Your task to perform on an android device: Open Google Chrome and open the bookmarks view Image 0: 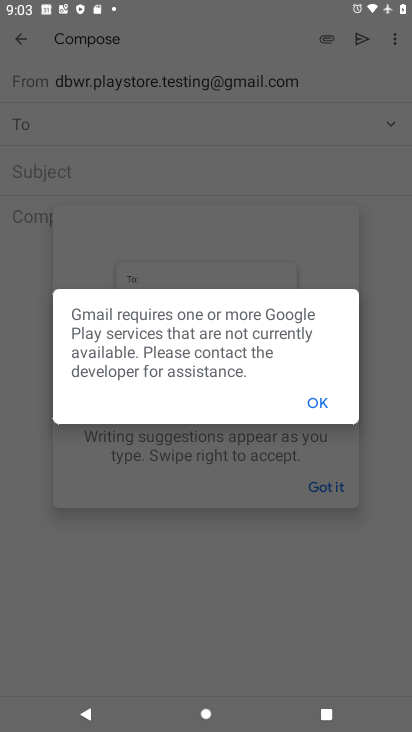
Step 0: press home button
Your task to perform on an android device: Open Google Chrome and open the bookmarks view Image 1: 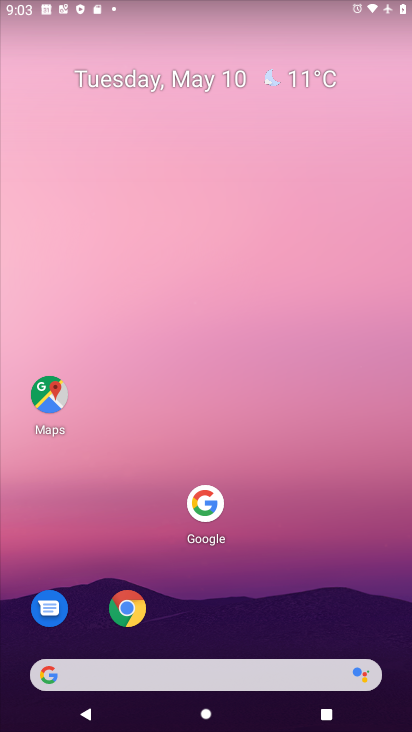
Step 1: drag from (262, 682) to (257, 153)
Your task to perform on an android device: Open Google Chrome and open the bookmarks view Image 2: 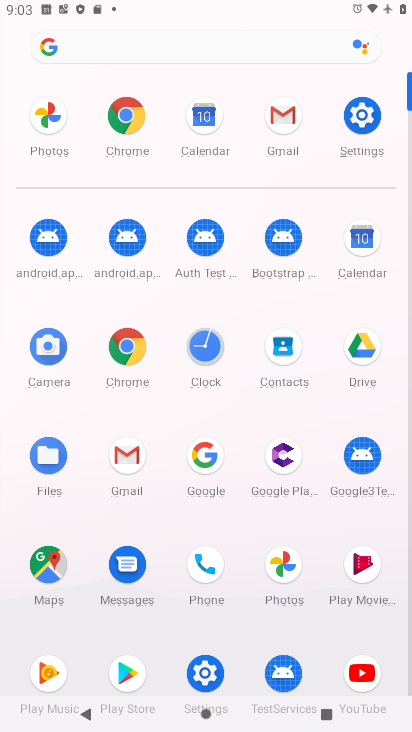
Step 2: click (127, 121)
Your task to perform on an android device: Open Google Chrome and open the bookmarks view Image 3: 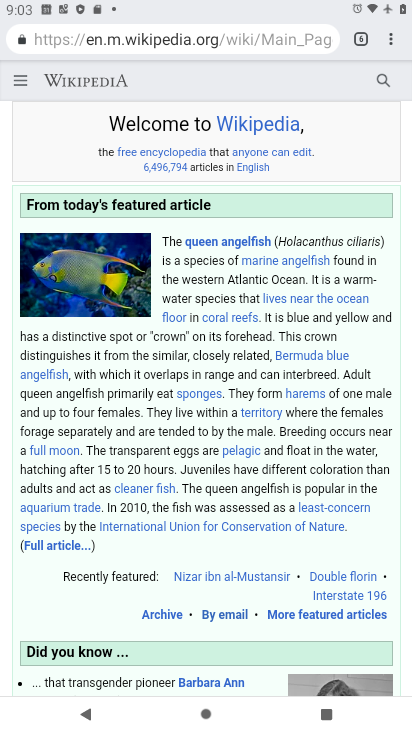
Step 3: task complete